Your task to perform on an android device: Open Yahoo.com Image 0: 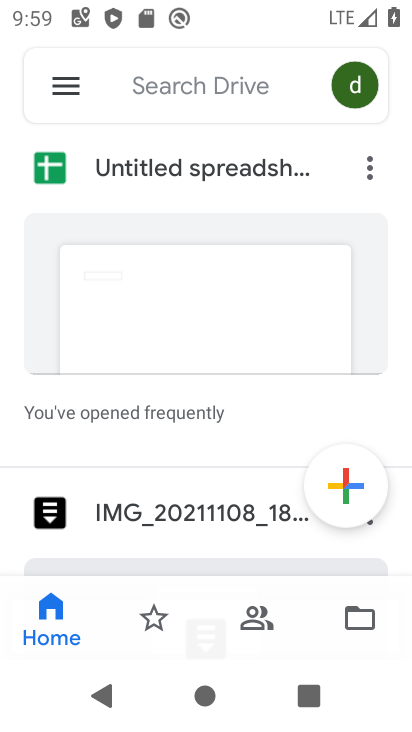
Step 0: press home button
Your task to perform on an android device: Open Yahoo.com Image 1: 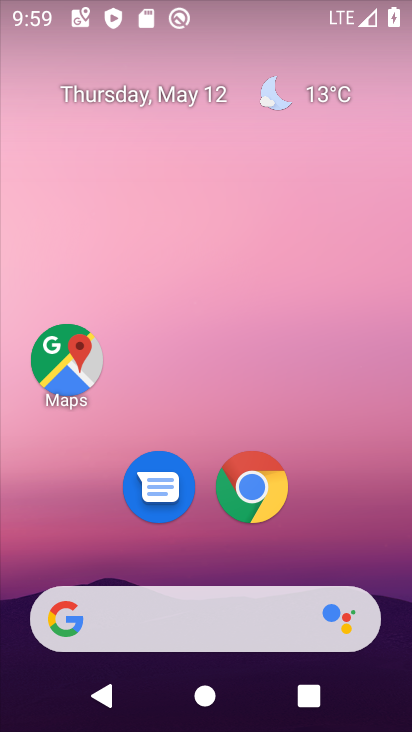
Step 1: click (260, 488)
Your task to perform on an android device: Open Yahoo.com Image 2: 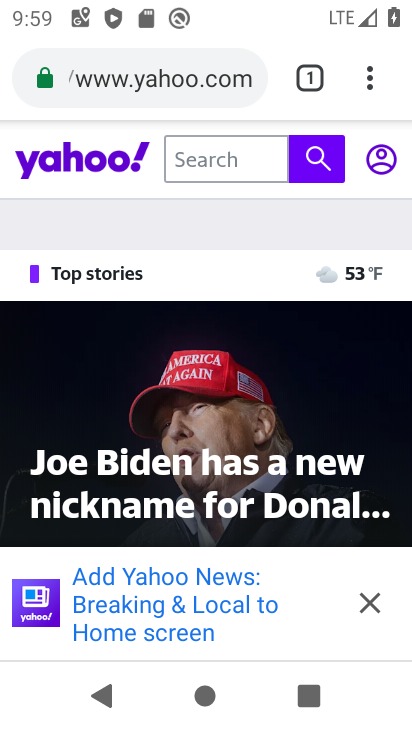
Step 2: task complete